Your task to perform on an android device: clear all cookies in the chrome app Image 0: 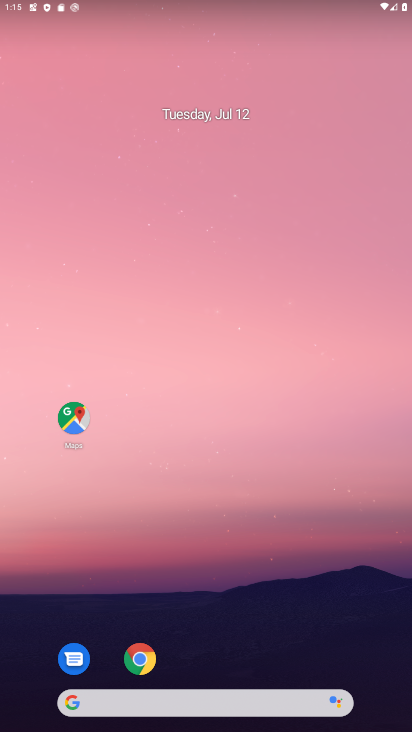
Step 0: click (151, 668)
Your task to perform on an android device: clear all cookies in the chrome app Image 1: 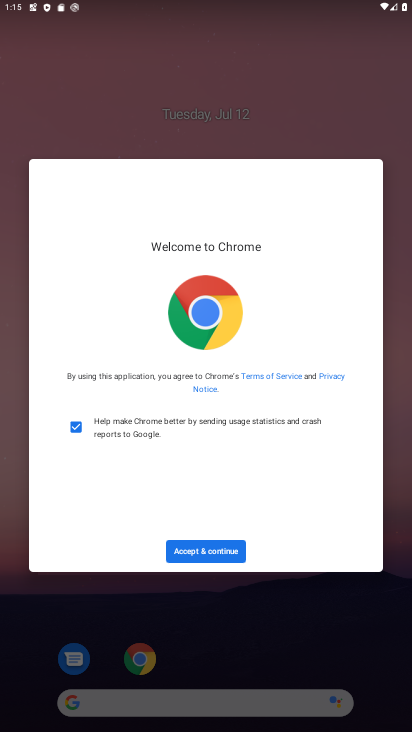
Step 1: click (198, 549)
Your task to perform on an android device: clear all cookies in the chrome app Image 2: 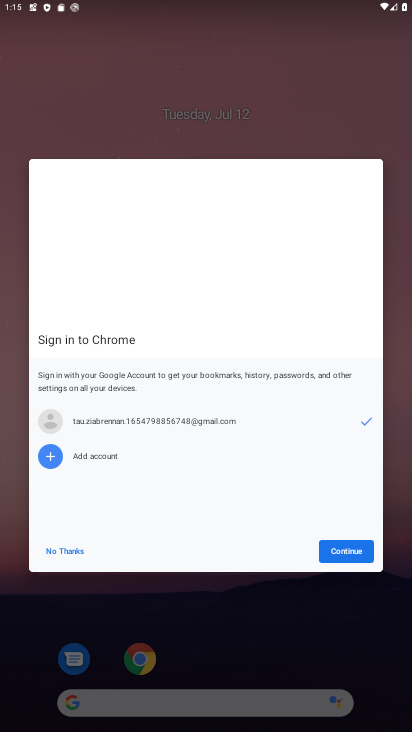
Step 2: click (334, 552)
Your task to perform on an android device: clear all cookies in the chrome app Image 3: 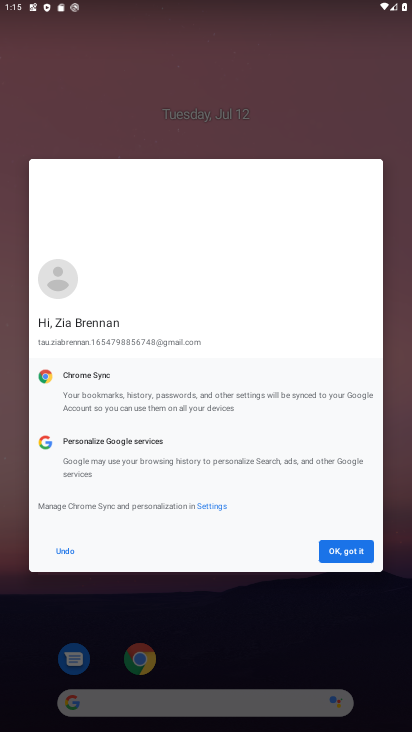
Step 3: click (344, 549)
Your task to perform on an android device: clear all cookies in the chrome app Image 4: 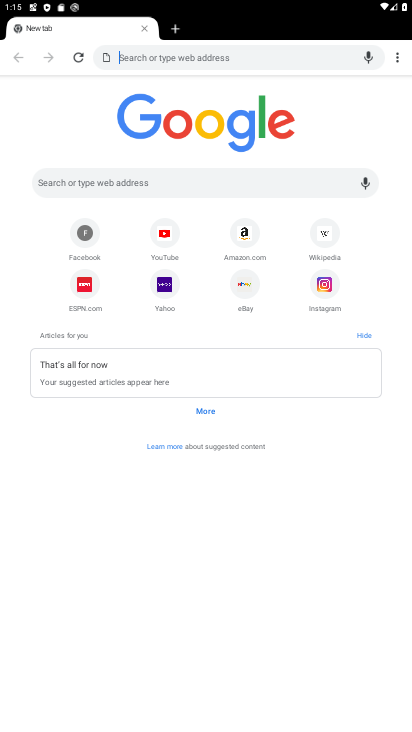
Step 4: drag from (398, 63) to (347, 256)
Your task to perform on an android device: clear all cookies in the chrome app Image 5: 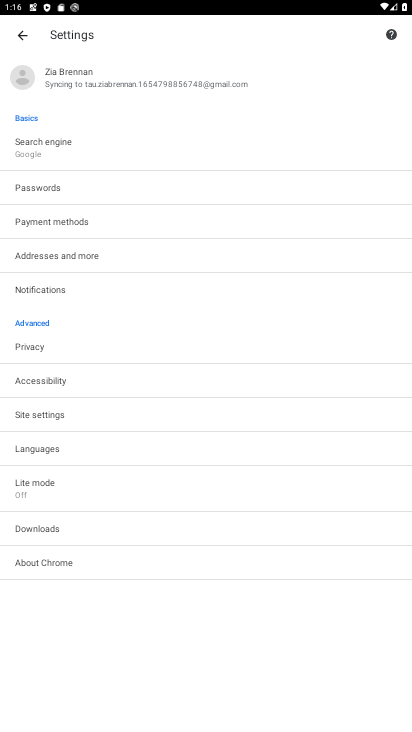
Step 5: click (99, 350)
Your task to perform on an android device: clear all cookies in the chrome app Image 6: 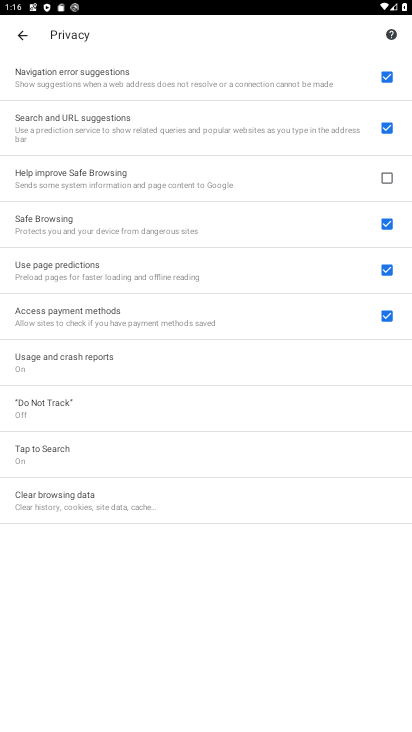
Step 6: click (90, 504)
Your task to perform on an android device: clear all cookies in the chrome app Image 7: 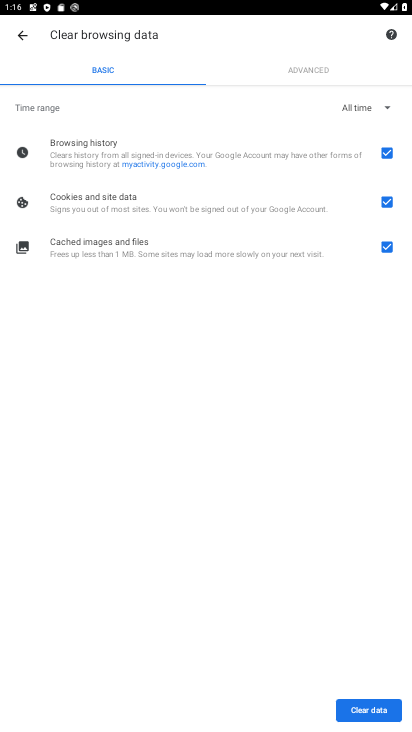
Step 7: click (392, 151)
Your task to perform on an android device: clear all cookies in the chrome app Image 8: 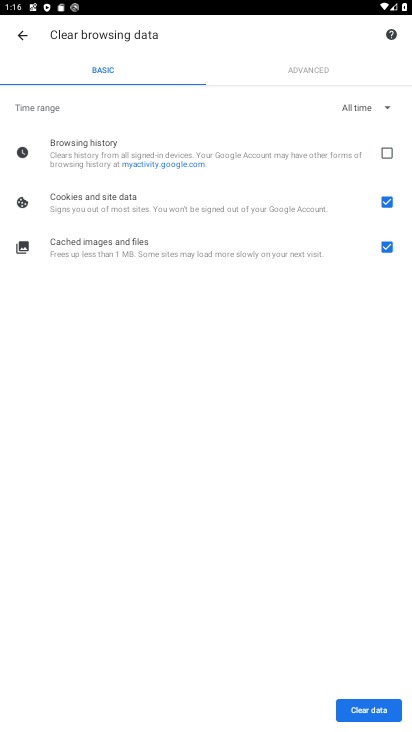
Step 8: click (391, 244)
Your task to perform on an android device: clear all cookies in the chrome app Image 9: 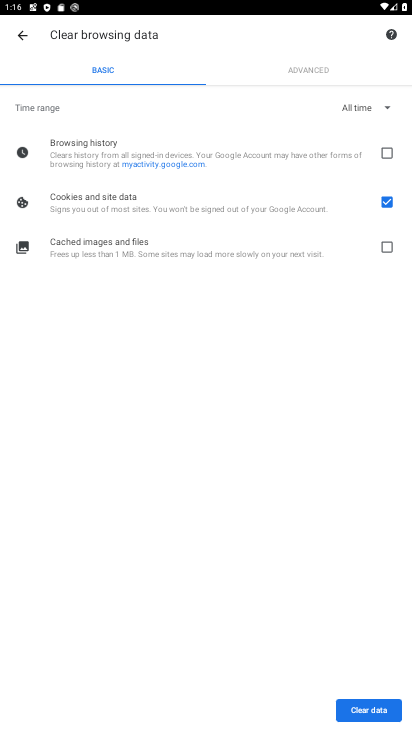
Step 9: click (374, 708)
Your task to perform on an android device: clear all cookies in the chrome app Image 10: 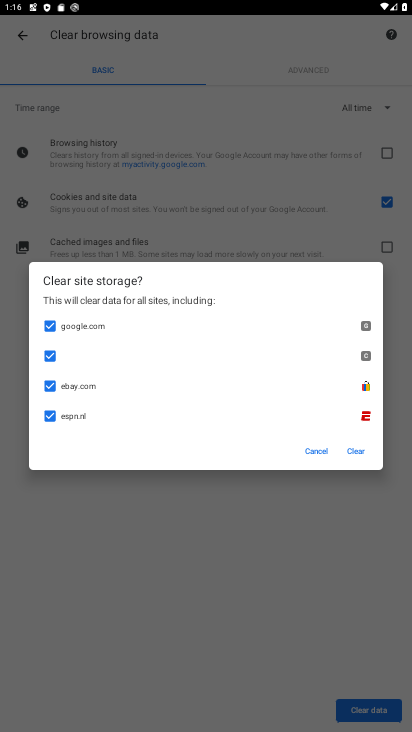
Step 10: click (360, 453)
Your task to perform on an android device: clear all cookies in the chrome app Image 11: 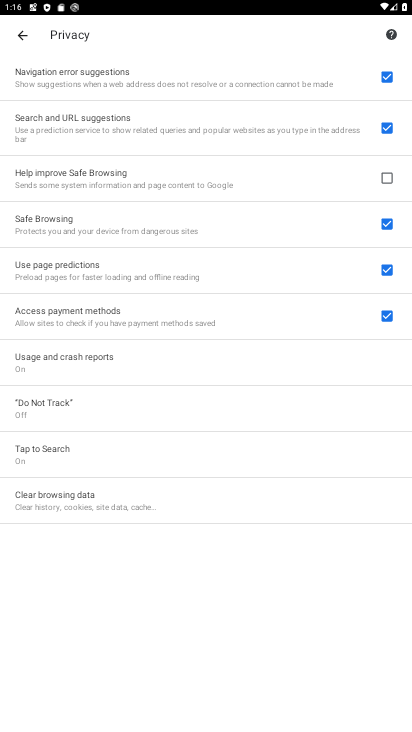
Step 11: task complete